Your task to perform on an android device: Open eBay Image 0: 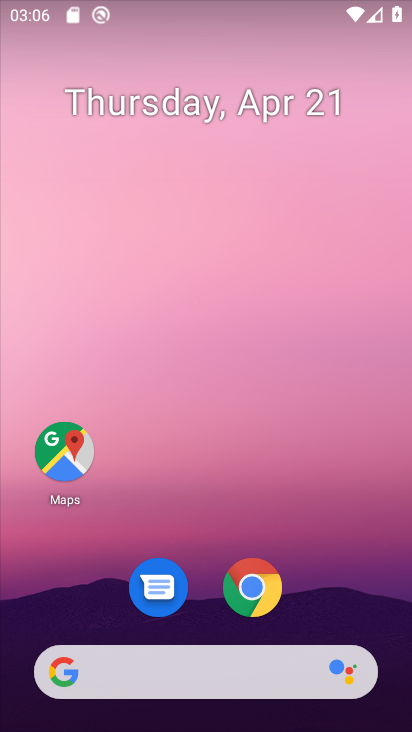
Step 0: drag from (350, 598) to (365, 127)
Your task to perform on an android device: Open eBay Image 1: 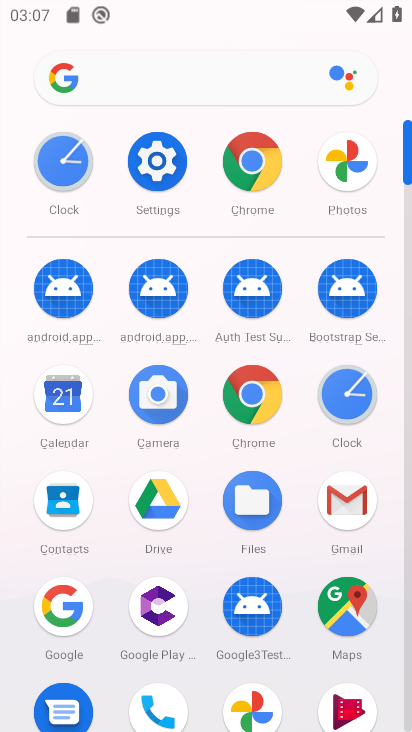
Step 1: click (265, 409)
Your task to perform on an android device: Open eBay Image 2: 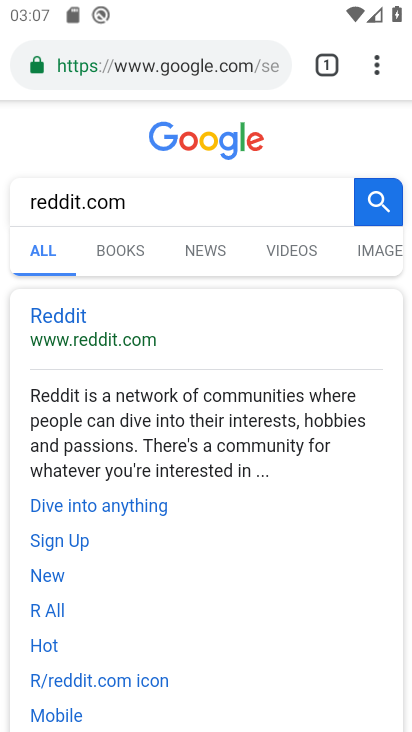
Step 2: click (233, 63)
Your task to perform on an android device: Open eBay Image 3: 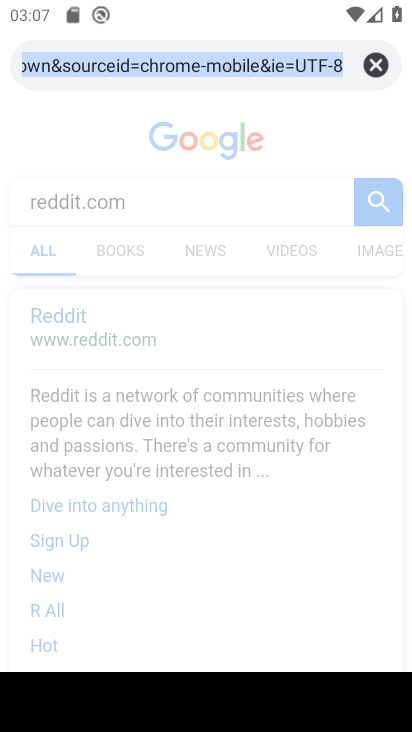
Step 3: click (369, 67)
Your task to perform on an android device: Open eBay Image 4: 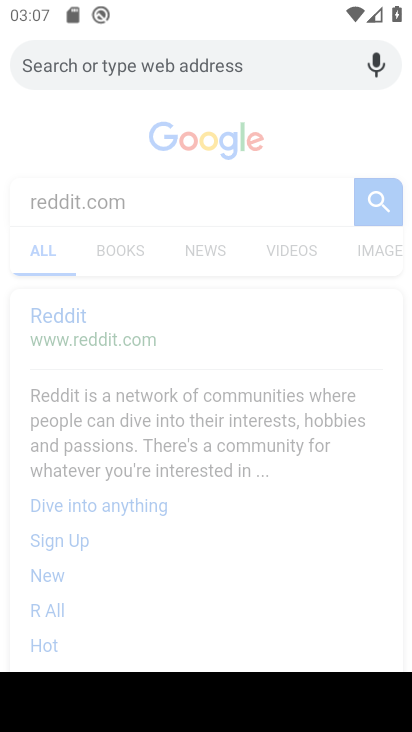
Step 4: type "eabay"
Your task to perform on an android device: Open eBay Image 5: 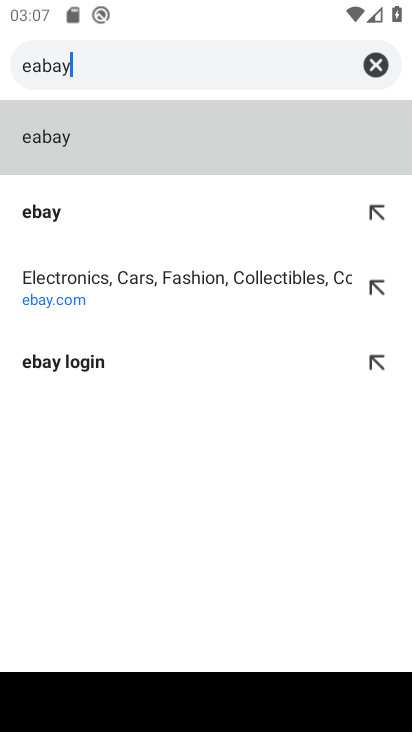
Step 5: click (238, 223)
Your task to perform on an android device: Open eBay Image 6: 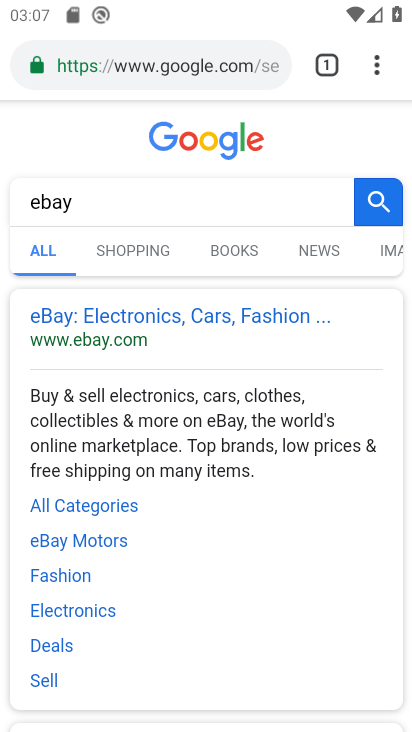
Step 6: click (233, 318)
Your task to perform on an android device: Open eBay Image 7: 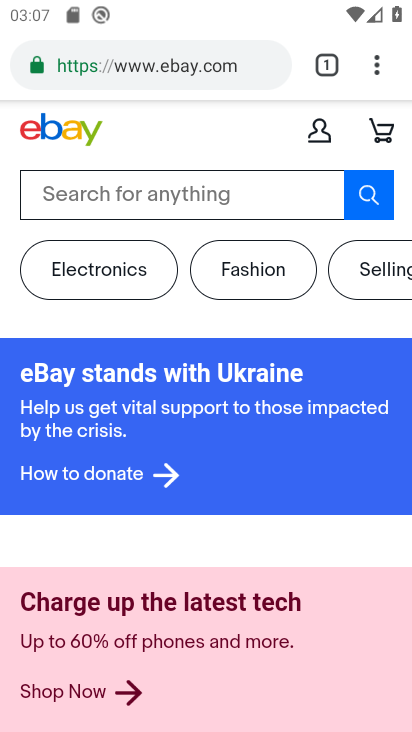
Step 7: task complete